Your task to perform on an android device: change the upload size in google photos Image 0: 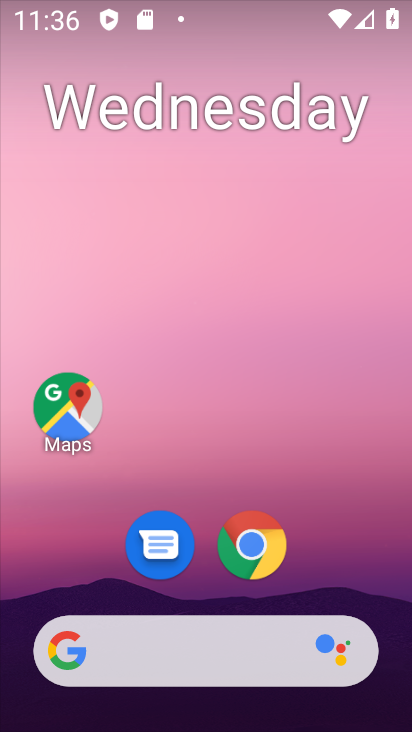
Step 0: drag from (340, 573) to (365, 134)
Your task to perform on an android device: change the upload size in google photos Image 1: 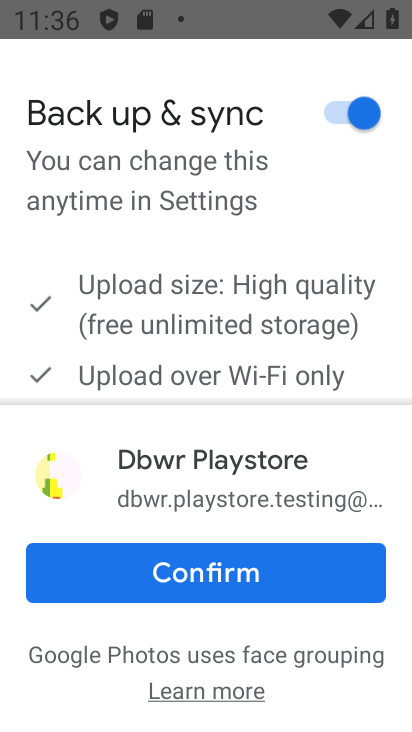
Step 1: press home button
Your task to perform on an android device: change the upload size in google photos Image 2: 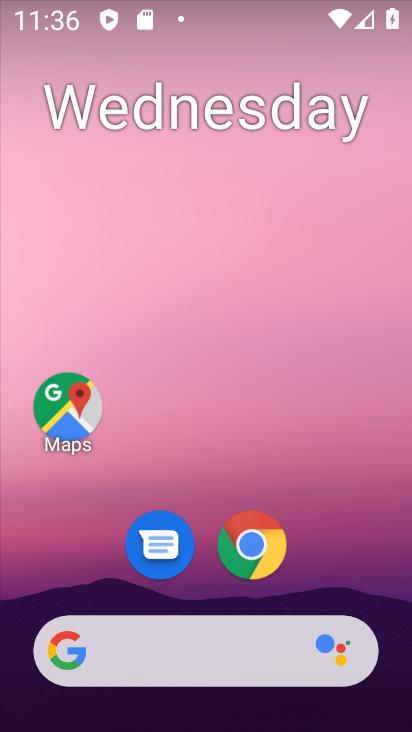
Step 2: drag from (316, 533) to (270, 116)
Your task to perform on an android device: change the upload size in google photos Image 3: 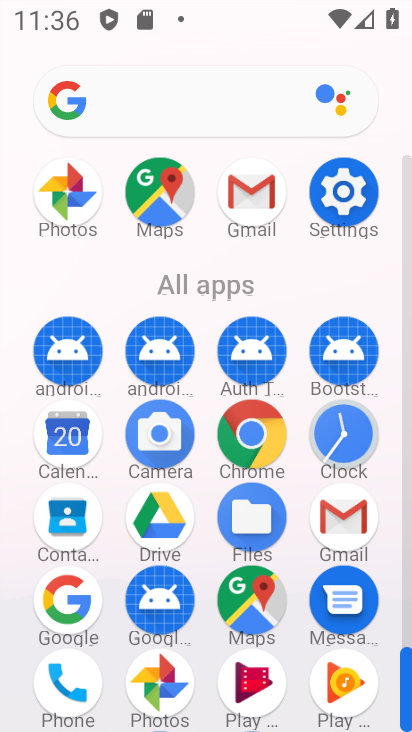
Step 3: click (66, 208)
Your task to perform on an android device: change the upload size in google photos Image 4: 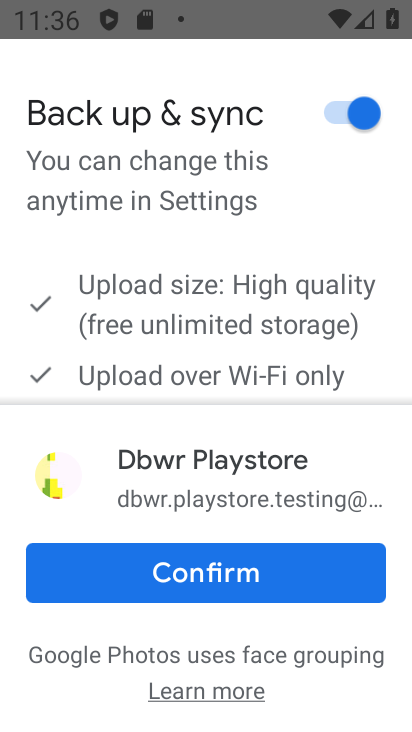
Step 4: click (214, 579)
Your task to perform on an android device: change the upload size in google photos Image 5: 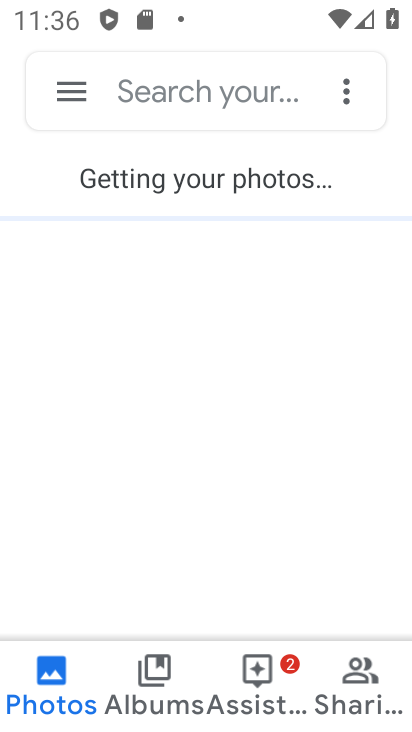
Step 5: click (79, 92)
Your task to perform on an android device: change the upload size in google photos Image 6: 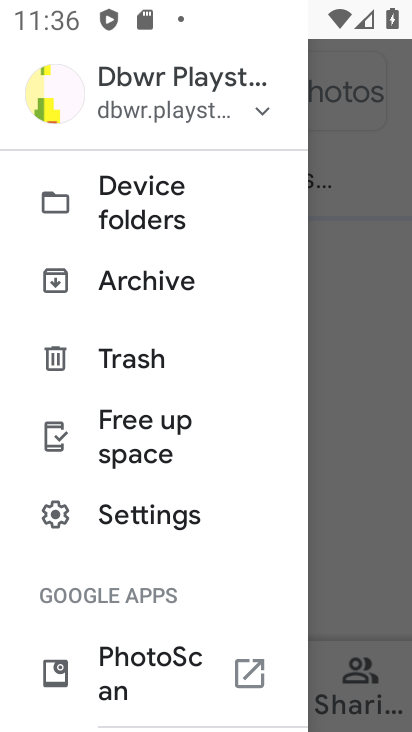
Step 6: click (169, 521)
Your task to perform on an android device: change the upload size in google photos Image 7: 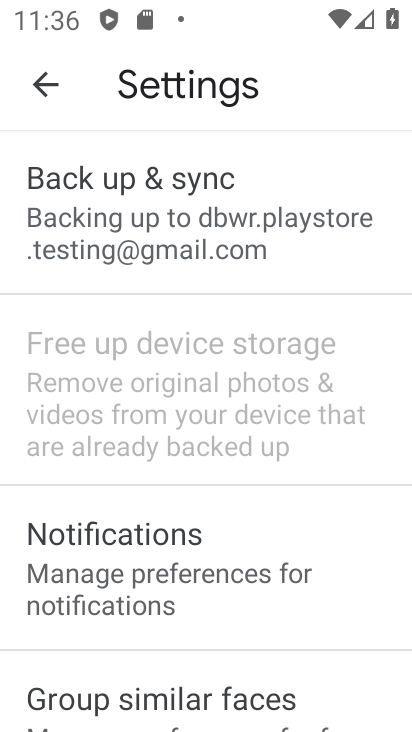
Step 7: click (204, 254)
Your task to perform on an android device: change the upload size in google photos Image 8: 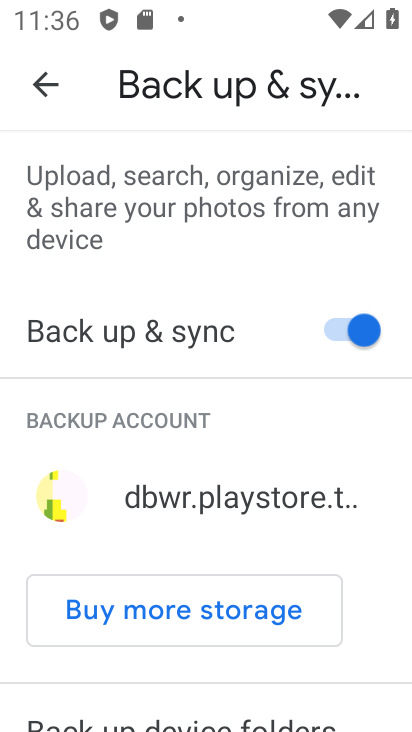
Step 8: click (158, 310)
Your task to perform on an android device: change the upload size in google photos Image 9: 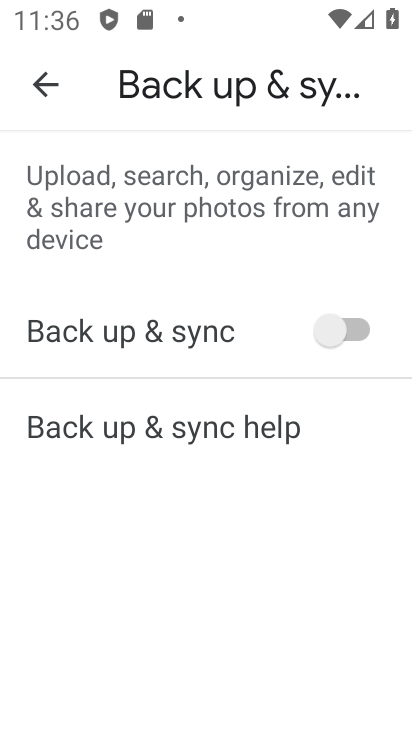
Step 9: drag from (205, 674) to (196, 384)
Your task to perform on an android device: change the upload size in google photos Image 10: 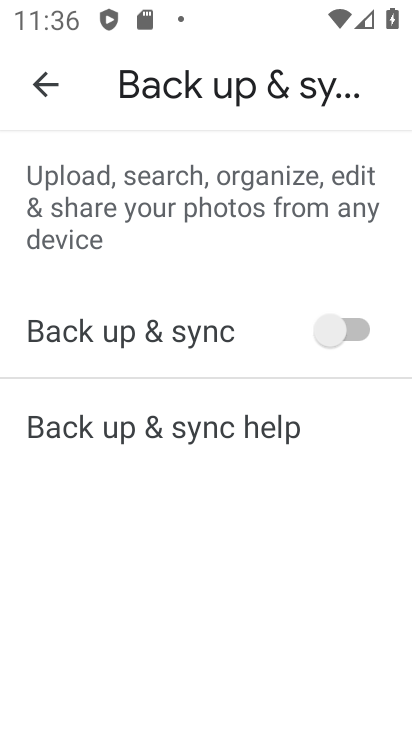
Step 10: click (323, 338)
Your task to perform on an android device: change the upload size in google photos Image 11: 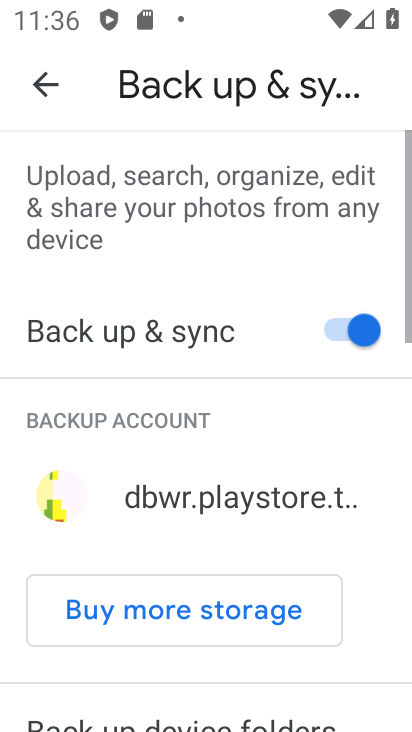
Step 11: drag from (218, 538) to (244, 189)
Your task to perform on an android device: change the upload size in google photos Image 12: 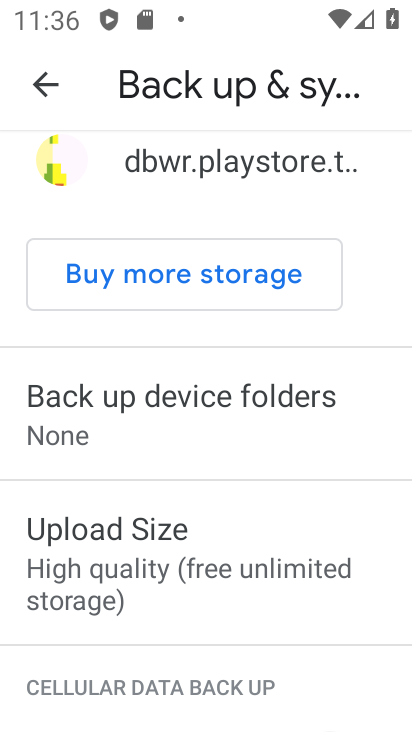
Step 12: click (192, 559)
Your task to perform on an android device: change the upload size in google photos Image 13: 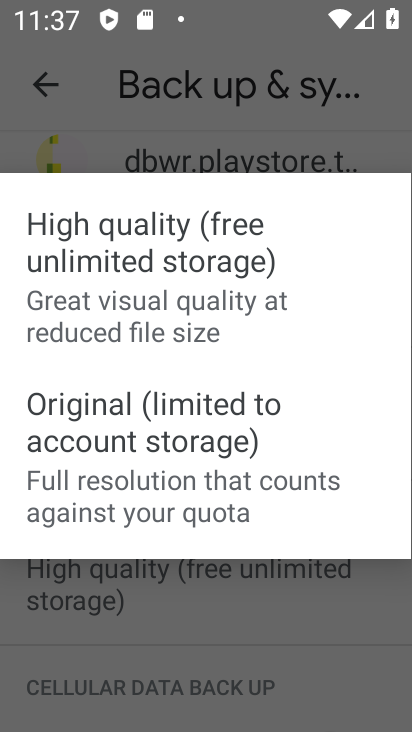
Step 13: click (175, 488)
Your task to perform on an android device: change the upload size in google photos Image 14: 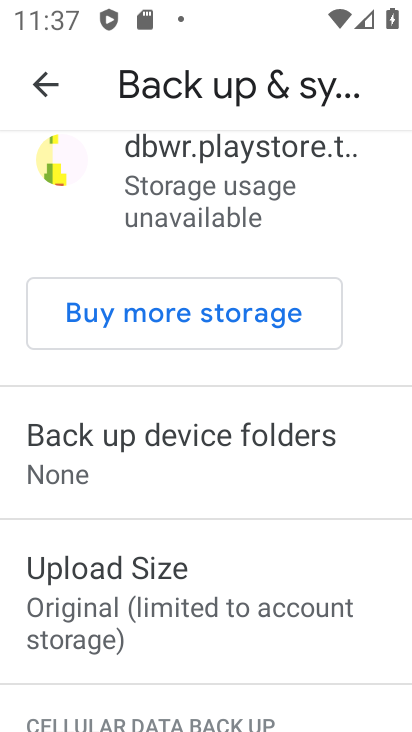
Step 14: task complete